Your task to perform on an android device: see sites visited before in the chrome app Image 0: 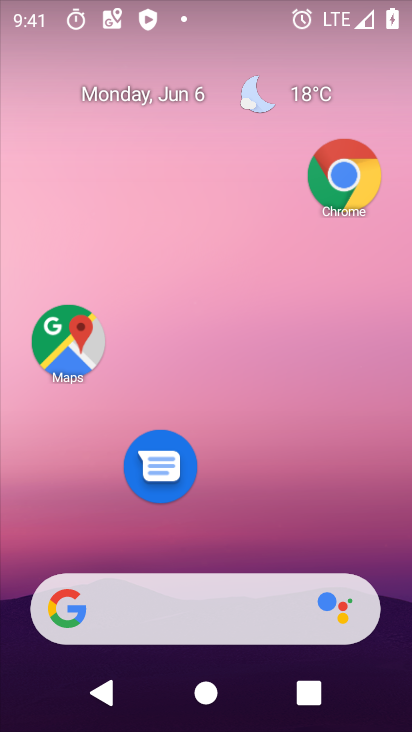
Step 0: click (242, 137)
Your task to perform on an android device: see sites visited before in the chrome app Image 1: 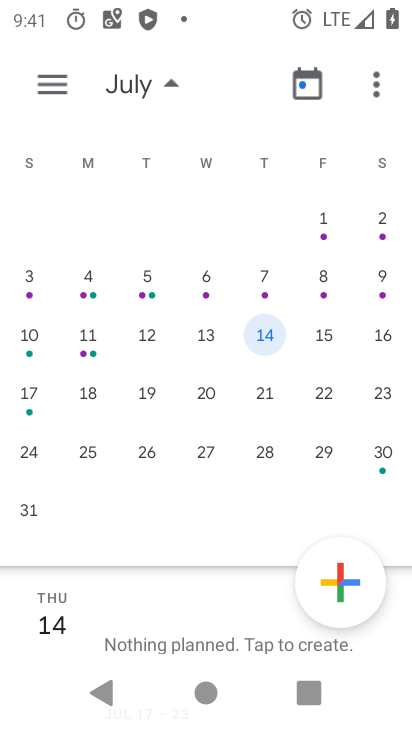
Step 1: press home button
Your task to perform on an android device: see sites visited before in the chrome app Image 2: 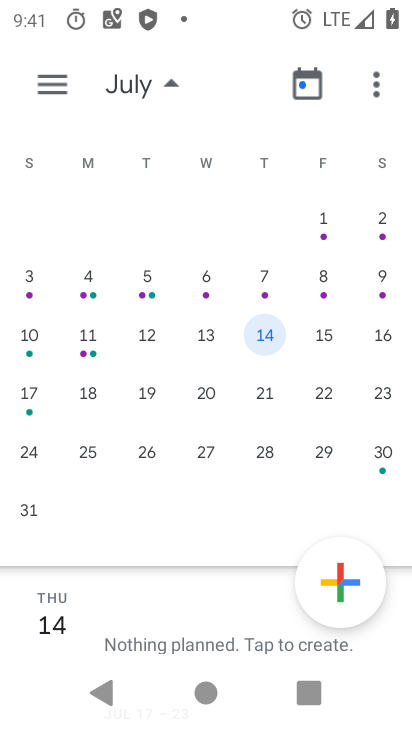
Step 2: drag from (204, 495) to (235, 208)
Your task to perform on an android device: see sites visited before in the chrome app Image 3: 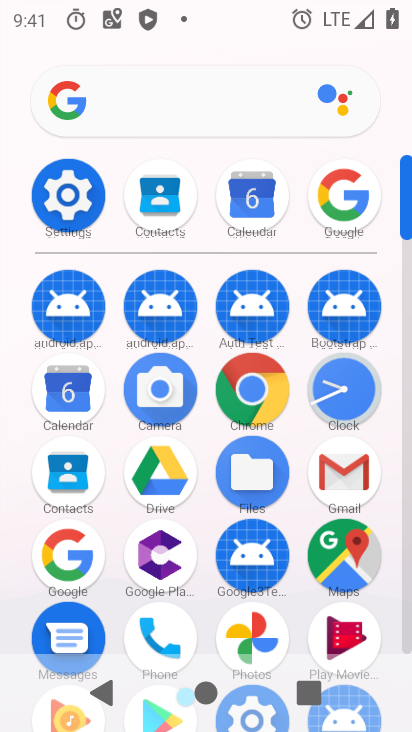
Step 3: click (248, 385)
Your task to perform on an android device: see sites visited before in the chrome app Image 4: 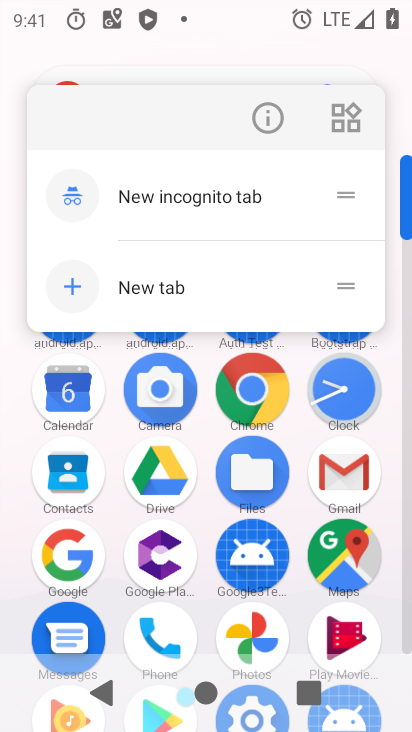
Step 4: click (279, 92)
Your task to perform on an android device: see sites visited before in the chrome app Image 5: 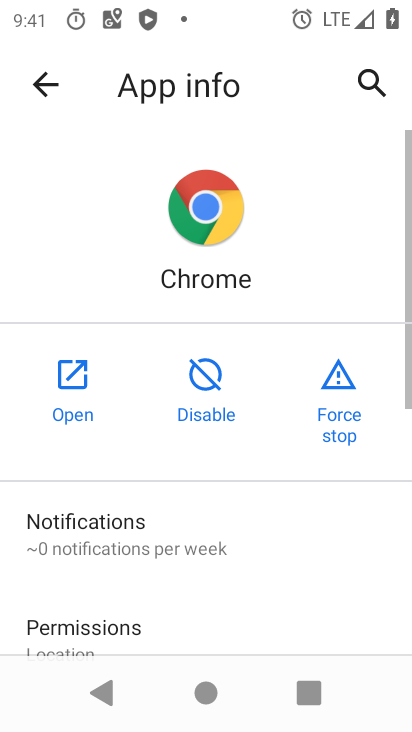
Step 5: click (83, 369)
Your task to perform on an android device: see sites visited before in the chrome app Image 6: 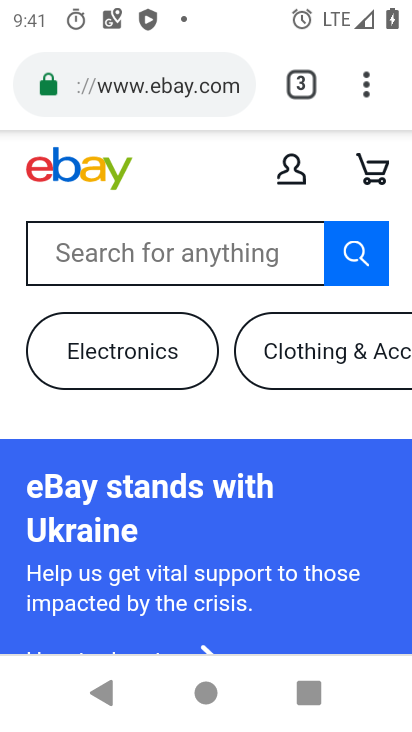
Step 6: click (374, 59)
Your task to perform on an android device: see sites visited before in the chrome app Image 7: 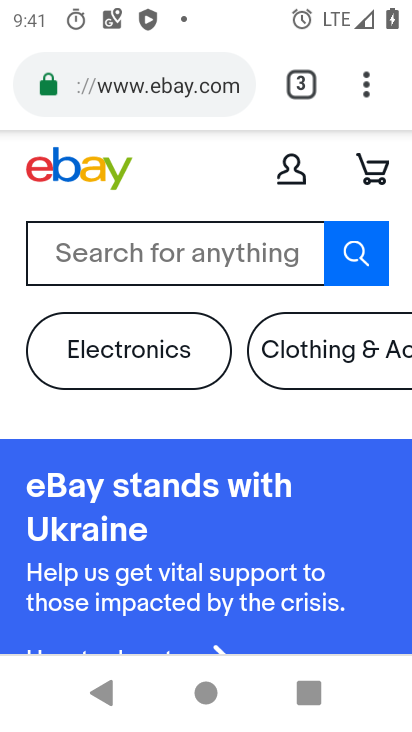
Step 7: task complete